Your task to perform on an android device: open wifi settings Image 0: 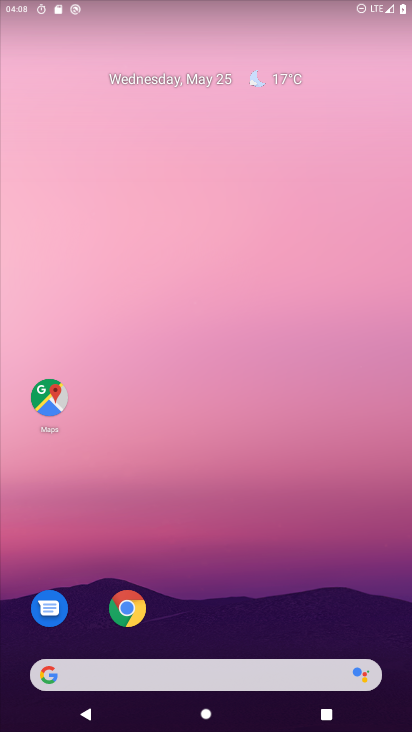
Step 0: drag from (297, 465) to (331, 58)
Your task to perform on an android device: open wifi settings Image 1: 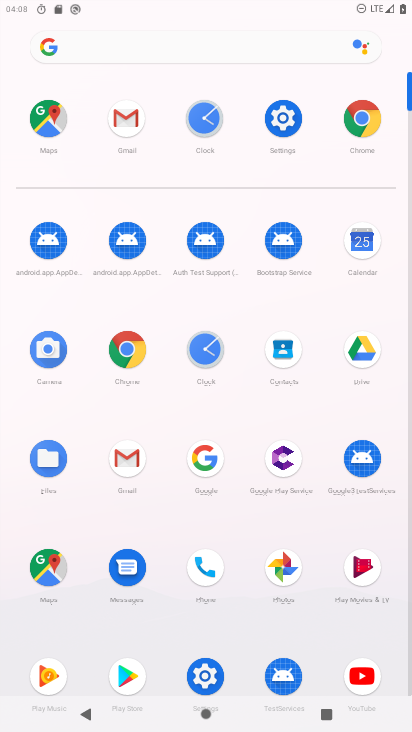
Step 1: click (291, 132)
Your task to perform on an android device: open wifi settings Image 2: 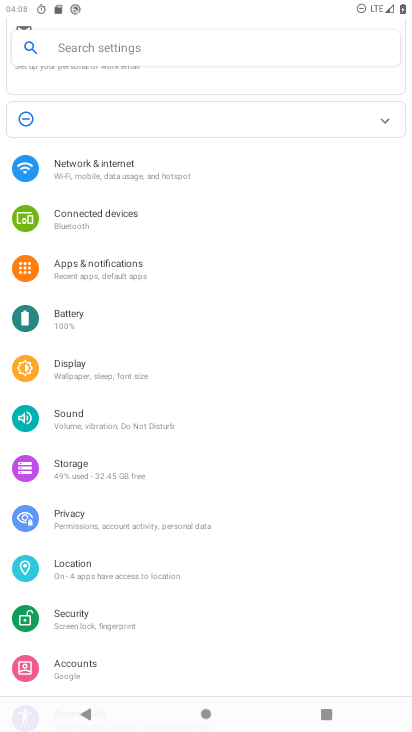
Step 2: click (157, 164)
Your task to perform on an android device: open wifi settings Image 3: 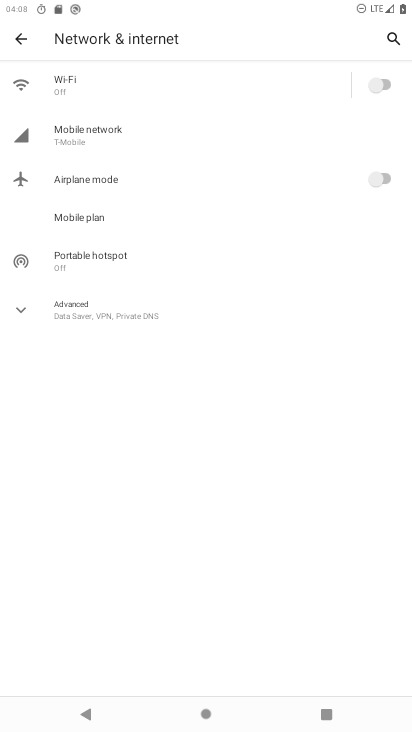
Step 3: click (156, 73)
Your task to perform on an android device: open wifi settings Image 4: 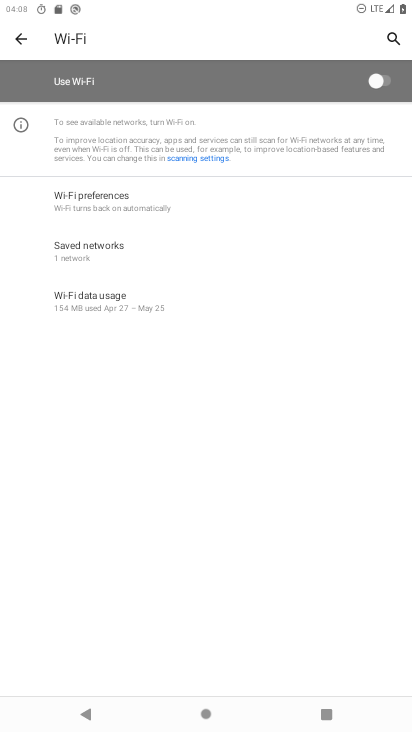
Step 4: click (380, 92)
Your task to perform on an android device: open wifi settings Image 5: 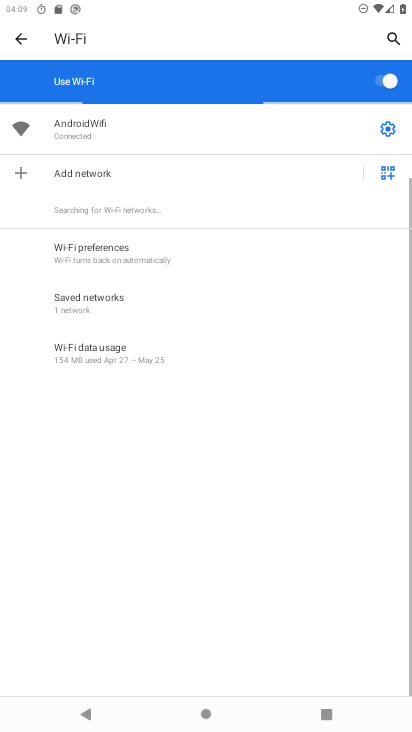
Step 5: click (386, 128)
Your task to perform on an android device: open wifi settings Image 6: 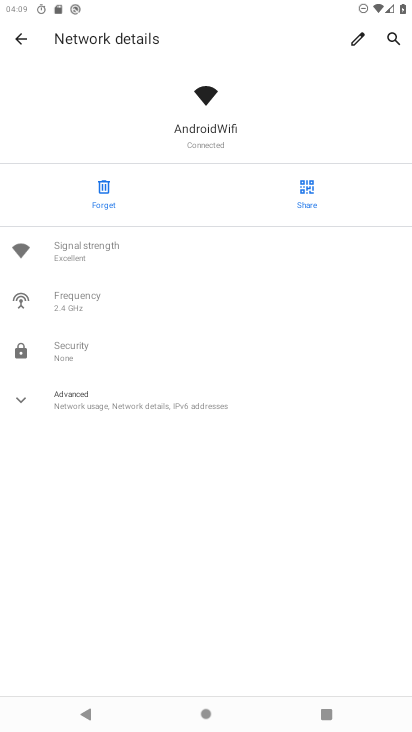
Step 6: task complete